Your task to perform on an android device: change the clock display to show seconds Image 0: 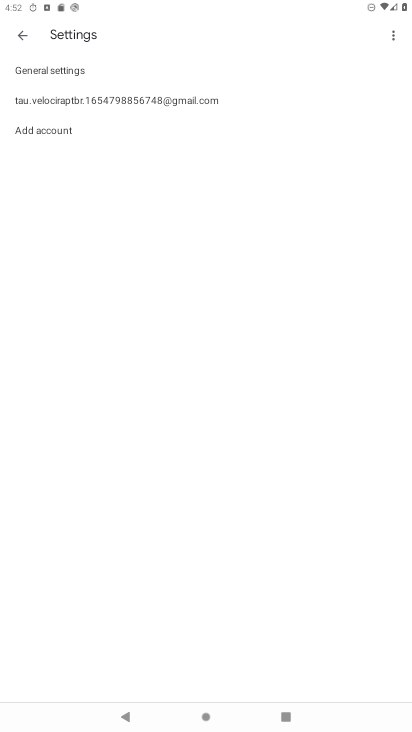
Step 0: press home button
Your task to perform on an android device: change the clock display to show seconds Image 1: 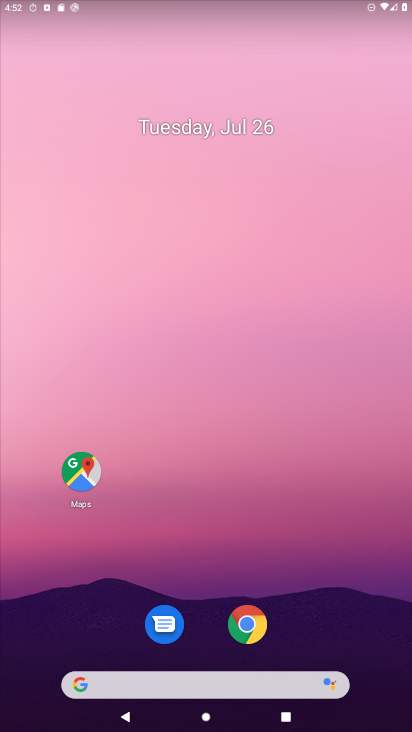
Step 1: drag from (268, 660) to (317, 0)
Your task to perform on an android device: change the clock display to show seconds Image 2: 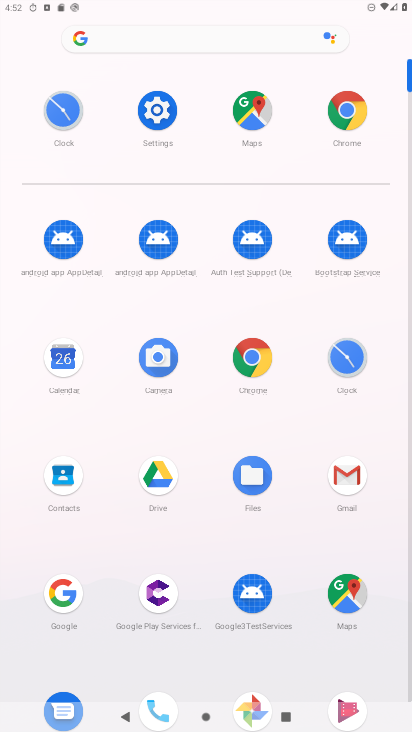
Step 2: click (355, 364)
Your task to perform on an android device: change the clock display to show seconds Image 3: 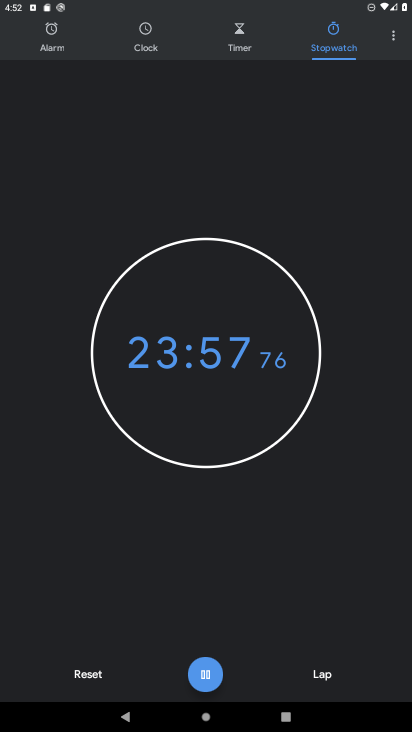
Step 3: click (390, 35)
Your task to perform on an android device: change the clock display to show seconds Image 4: 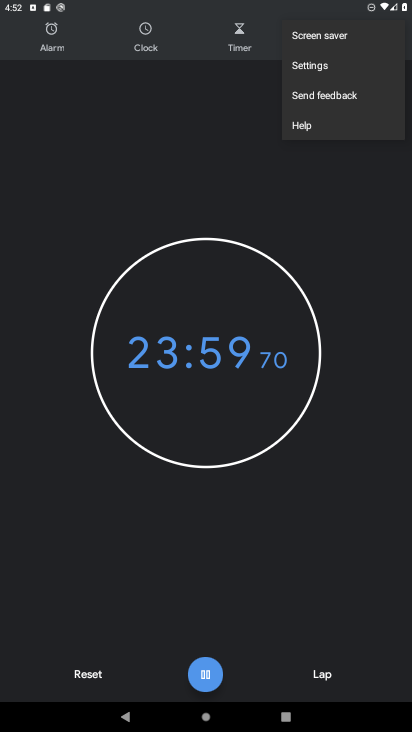
Step 4: click (310, 64)
Your task to perform on an android device: change the clock display to show seconds Image 5: 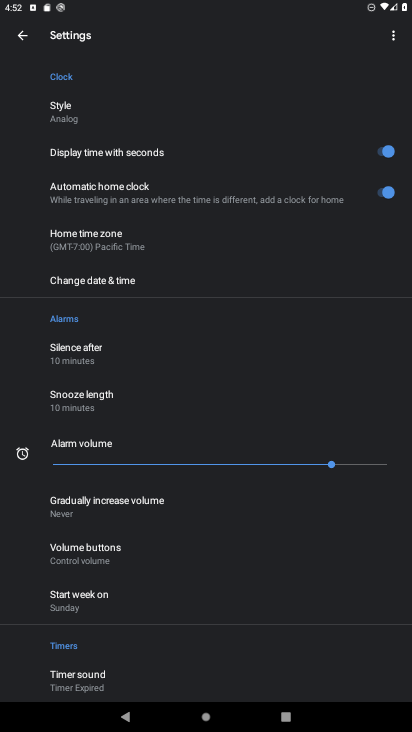
Step 5: task complete